Your task to perform on an android device: open chrome and create a bookmark for the current page Image 0: 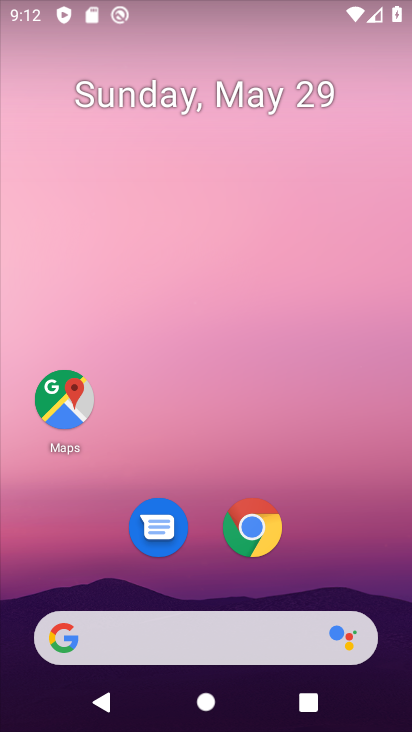
Step 0: press home button
Your task to perform on an android device: open chrome and create a bookmark for the current page Image 1: 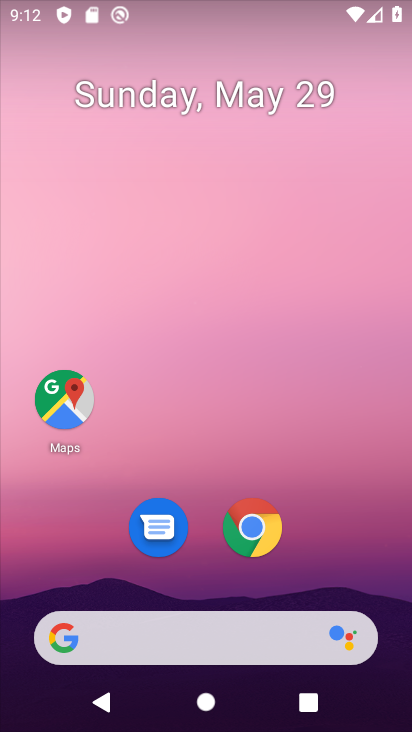
Step 1: click (261, 535)
Your task to perform on an android device: open chrome and create a bookmark for the current page Image 2: 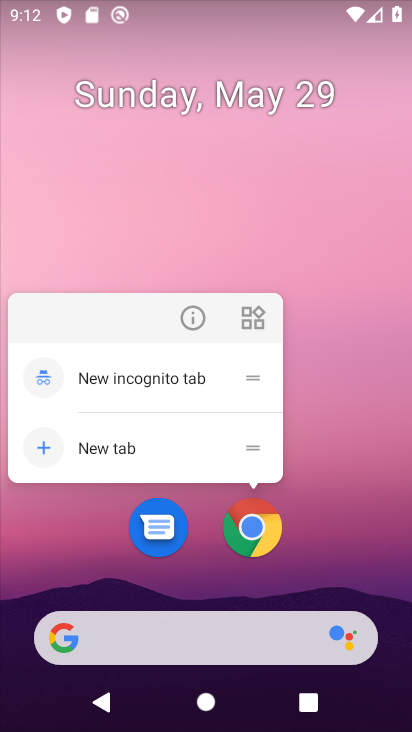
Step 2: click (252, 532)
Your task to perform on an android device: open chrome and create a bookmark for the current page Image 3: 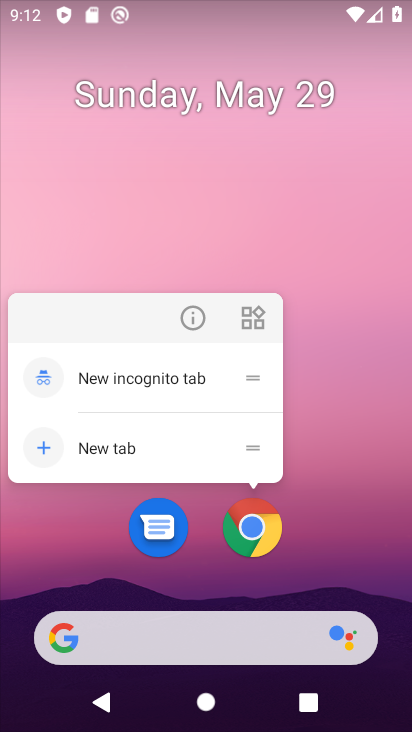
Step 3: click (247, 538)
Your task to perform on an android device: open chrome and create a bookmark for the current page Image 4: 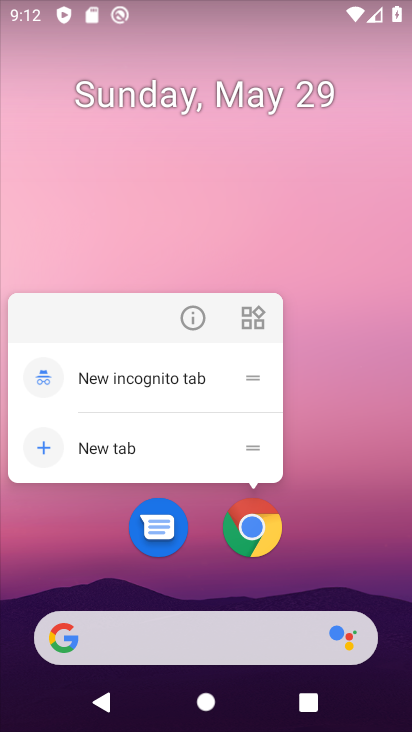
Step 4: click (247, 538)
Your task to perform on an android device: open chrome and create a bookmark for the current page Image 5: 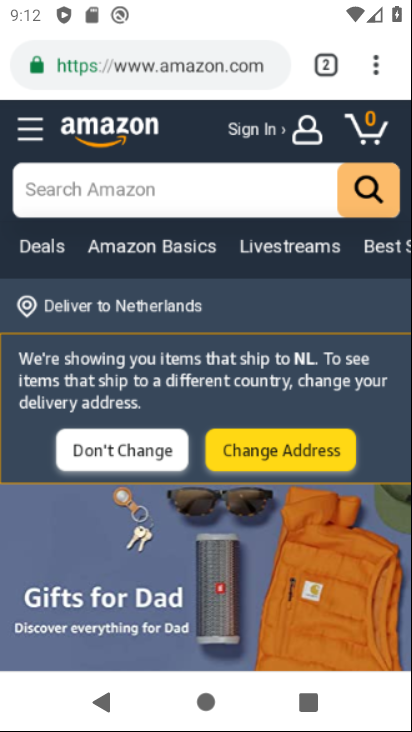
Step 5: click (380, 71)
Your task to perform on an android device: open chrome and create a bookmark for the current page Image 6: 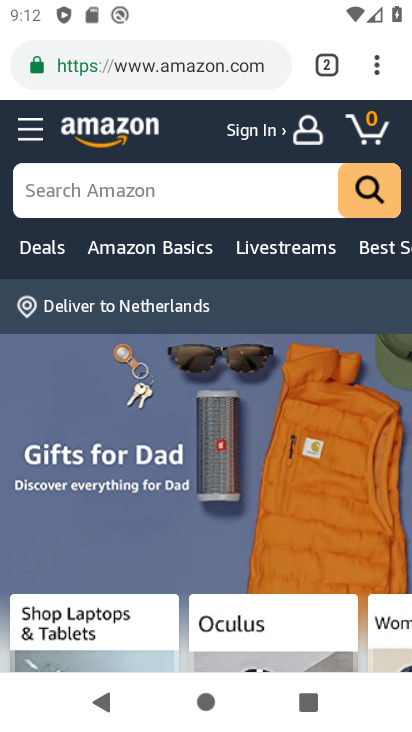
Step 6: click (372, 81)
Your task to perform on an android device: open chrome and create a bookmark for the current page Image 7: 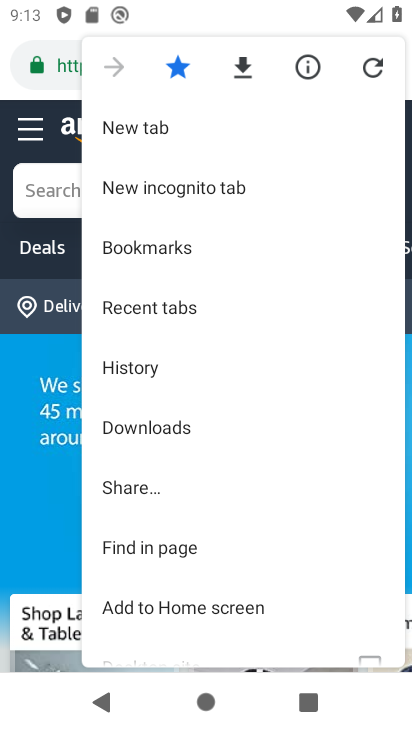
Step 7: task complete